Your task to perform on an android device: Open the web browser Image 0: 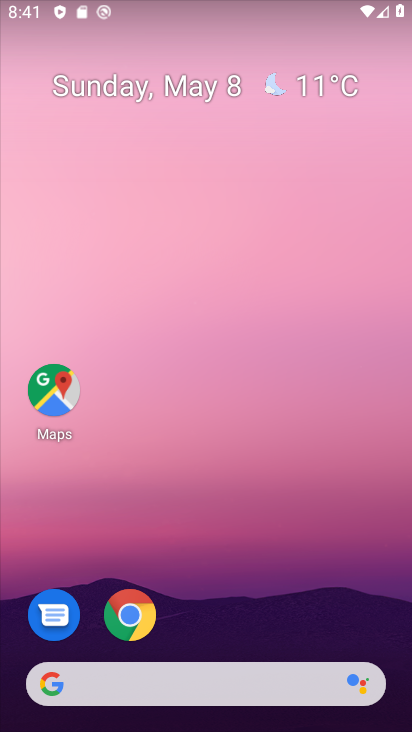
Step 0: click (130, 621)
Your task to perform on an android device: Open the web browser Image 1: 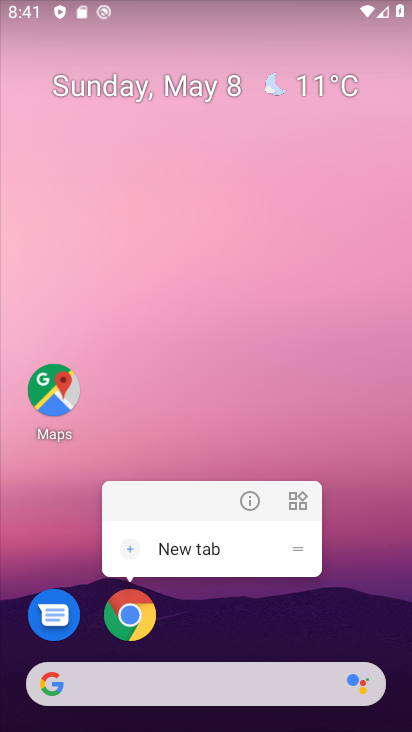
Step 1: click (134, 619)
Your task to perform on an android device: Open the web browser Image 2: 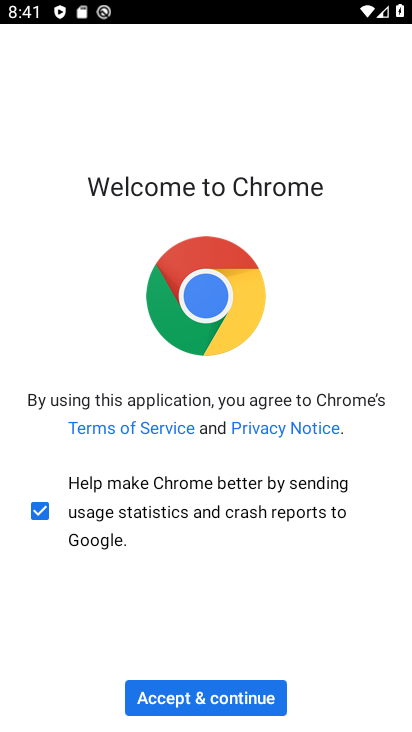
Step 2: click (224, 695)
Your task to perform on an android device: Open the web browser Image 3: 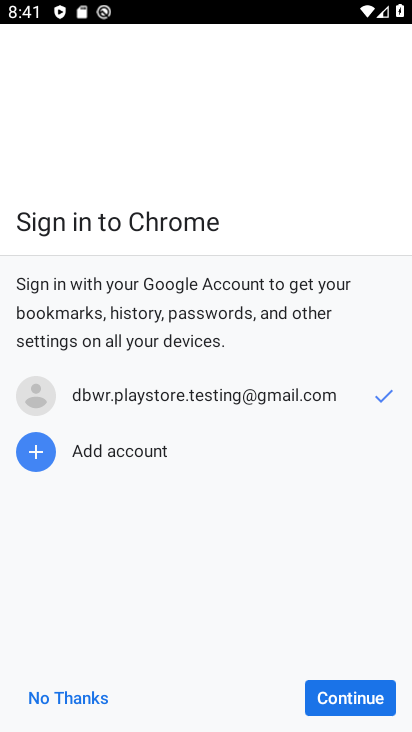
Step 3: click (351, 704)
Your task to perform on an android device: Open the web browser Image 4: 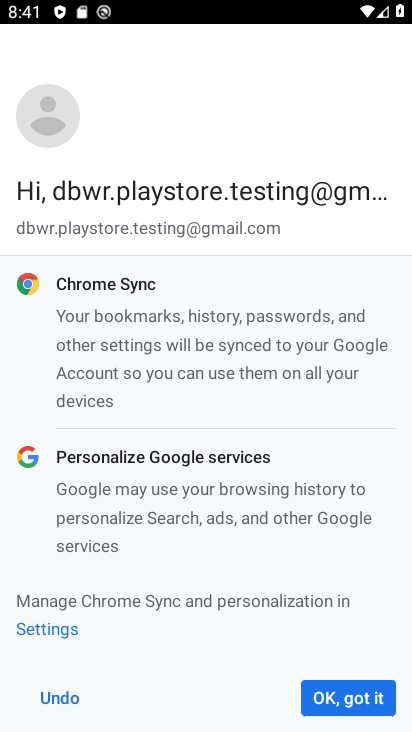
Step 4: click (352, 704)
Your task to perform on an android device: Open the web browser Image 5: 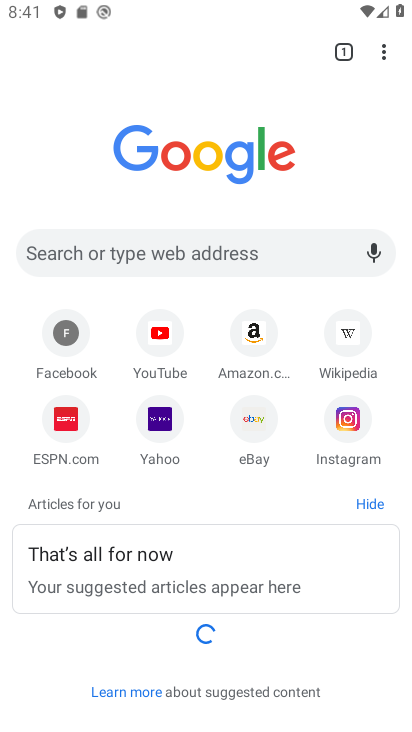
Step 5: task complete